Your task to perform on an android device: Show me popular games on the Play Store Image 0: 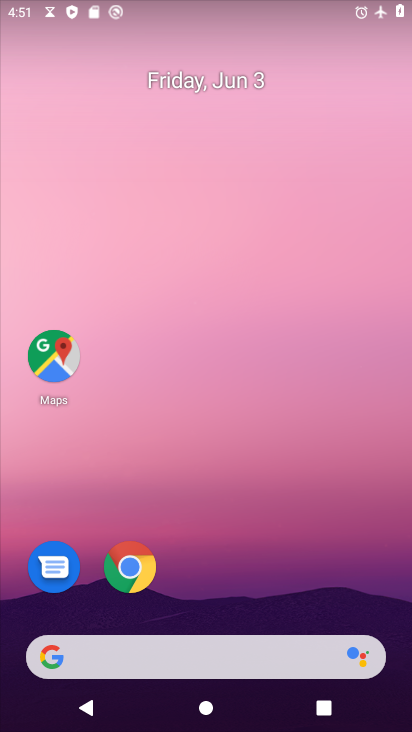
Step 0: drag from (310, 568) to (254, 95)
Your task to perform on an android device: Show me popular games on the Play Store Image 1: 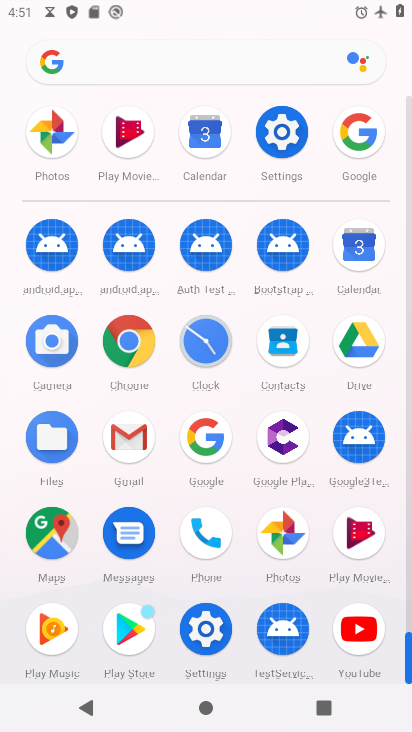
Step 1: click (130, 626)
Your task to perform on an android device: Show me popular games on the Play Store Image 2: 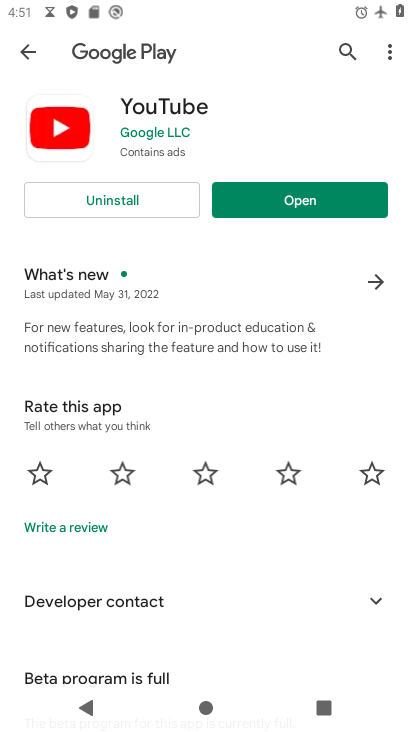
Step 2: click (33, 54)
Your task to perform on an android device: Show me popular games on the Play Store Image 3: 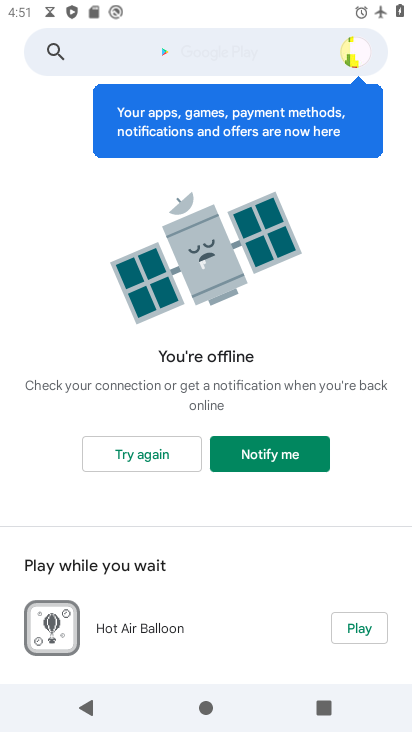
Step 3: click (212, 49)
Your task to perform on an android device: Show me popular games on the Play Store Image 4: 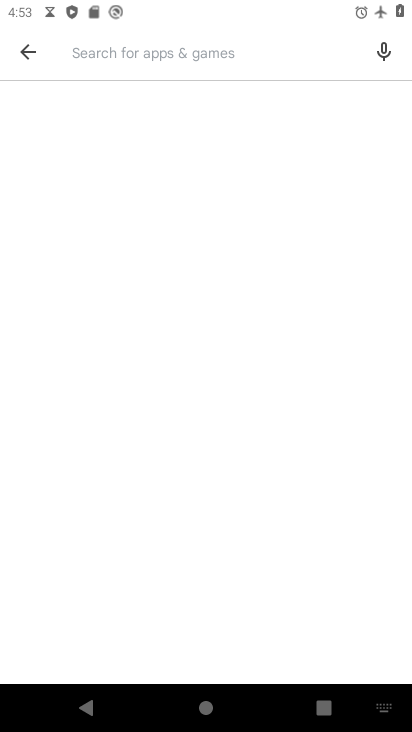
Step 4: type "popular games"
Your task to perform on an android device: Show me popular games on the Play Store Image 5: 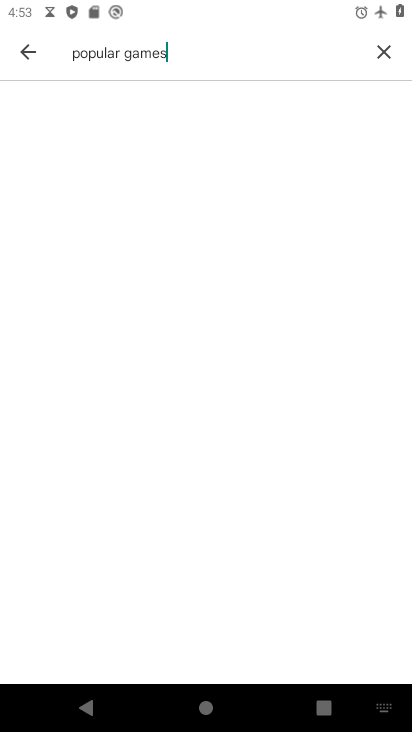
Step 5: task complete